Your task to perform on an android device: Go to calendar. Show me events next week Image 0: 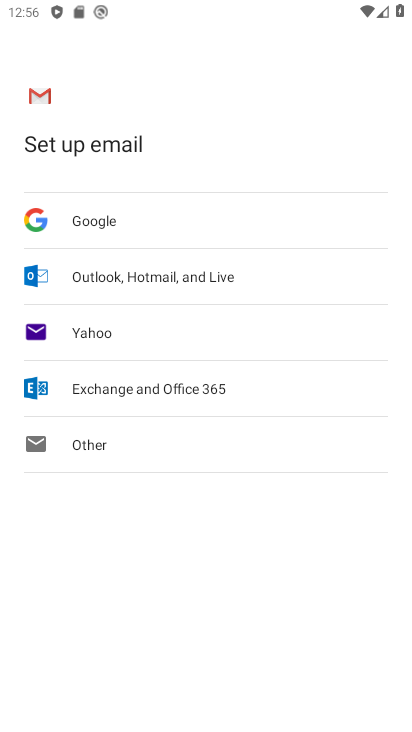
Step 0: press home button
Your task to perform on an android device: Go to calendar. Show me events next week Image 1: 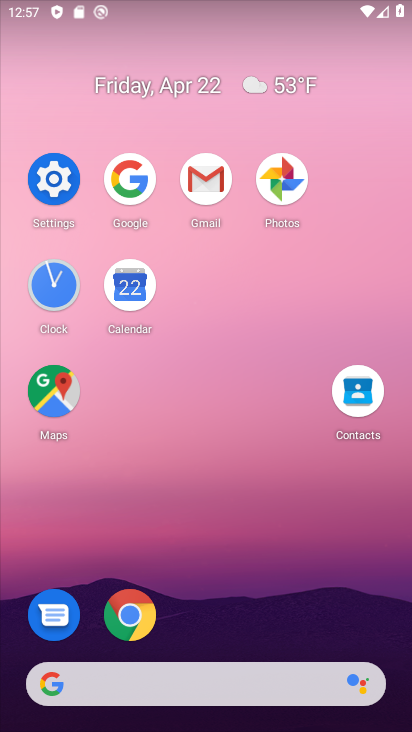
Step 1: click (140, 273)
Your task to perform on an android device: Go to calendar. Show me events next week Image 2: 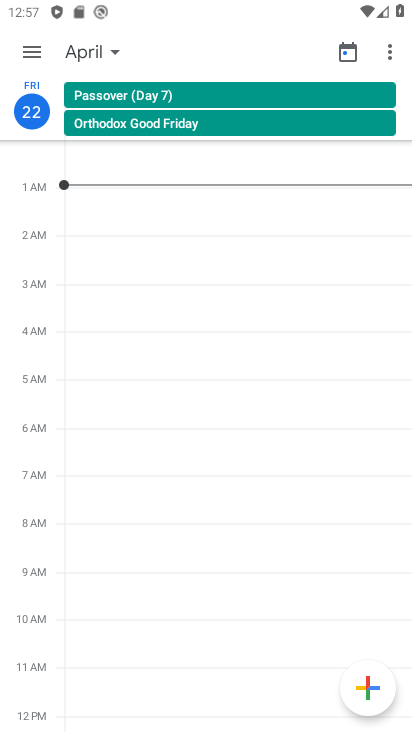
Step 2: click (22, 60)
Your task to perform on an android device: Go to calendar. Show me events next week Image 3: 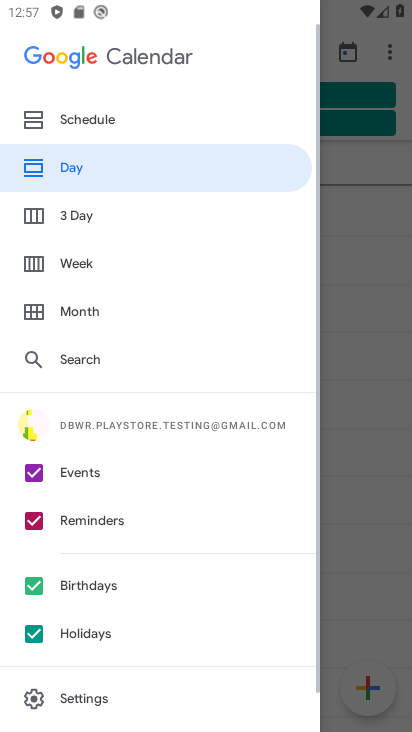
Step 3: click (103, 264)
Your task to perform on an android device: Go to calendar. Show me events next week Image 4: 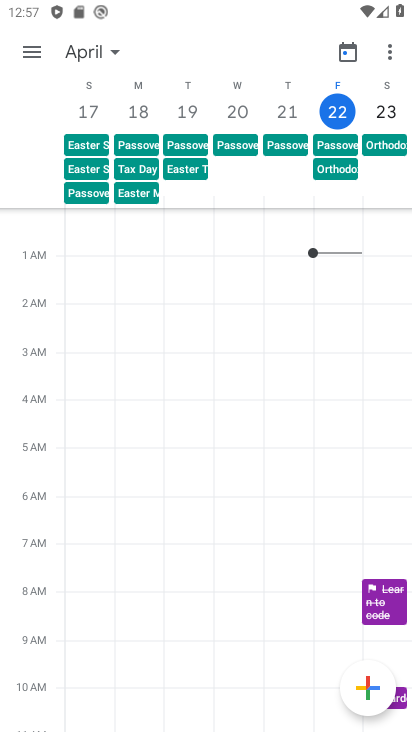
Step 4: task complete